Your task to perform on an android device: Play the last video I watched on Youtube Image 0: 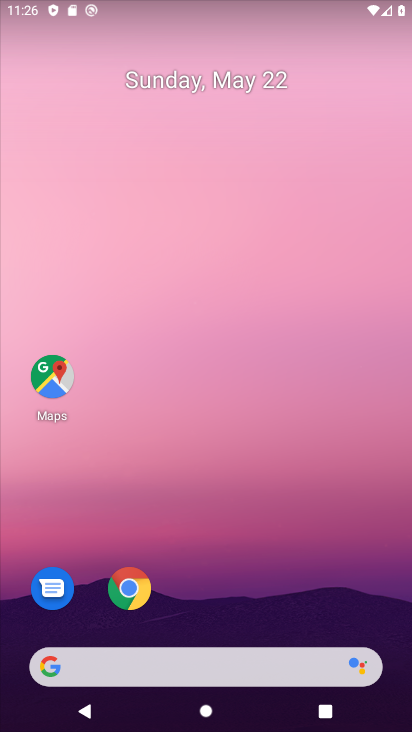
Step 0: drag from (250, 701) to (205, 118)
Your task to perform on an android device: Play the last video I watched on Youtube Image 1: 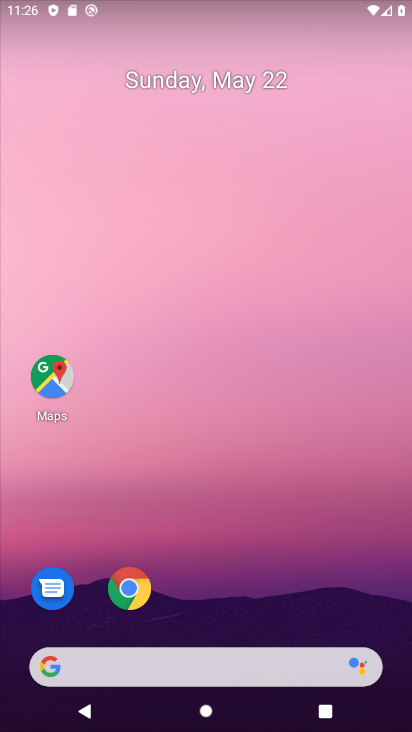
Step 1: drag from (208, 607) to (197, 24)
Your task to perform on an android device: Play the last video I watched on Youtube Image 2: 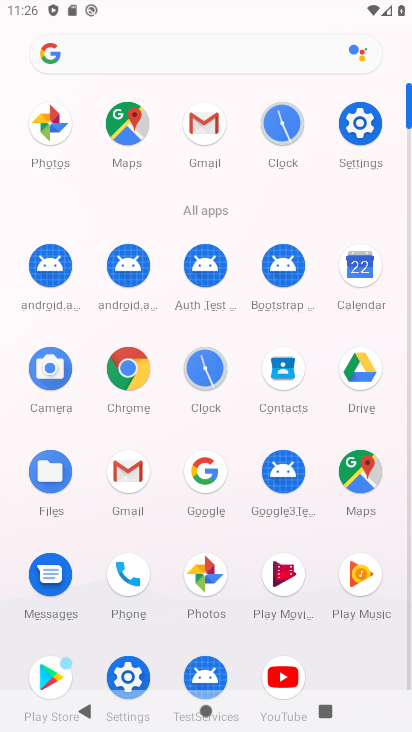
Step 2: drag from (212, 468) to (219, 34)
Your task to perform on an android device: Play the last video I watched on Youtube Image 3: 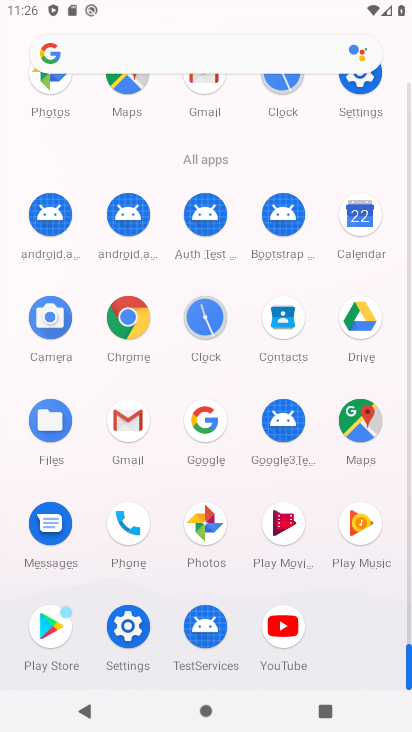
Step 3: click (284, 629)
Your task to perform on an android device: Play the last video I watched on Youtube Image 4: 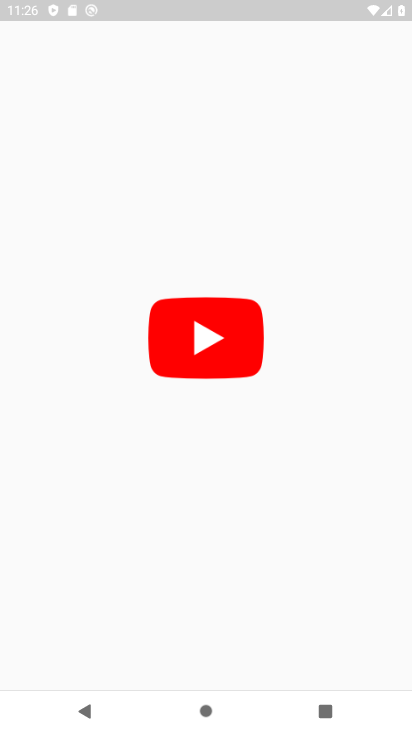
Step 4: click (283, 627)
Your task to perform on an android device: Play the last video I watched on Youtube Image 5: 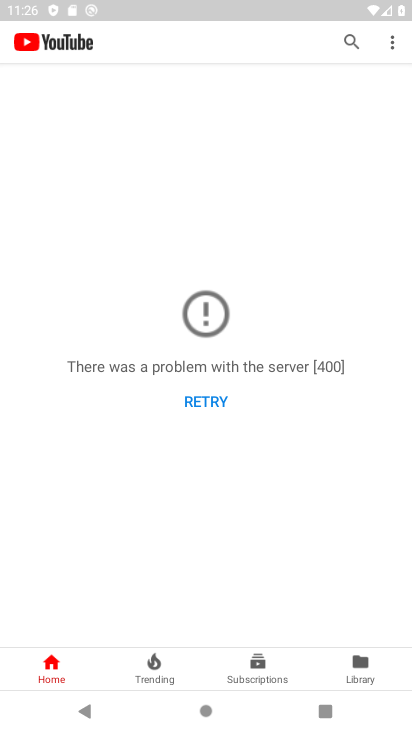
Step 5: task complete